Your task to perform on an android device: turn on notifications settings in the gmail app Image 0: 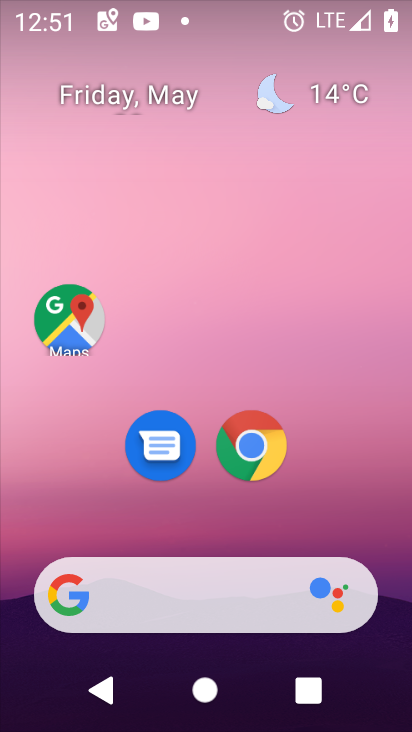
Step 0: drag from (64, 520) to (319, 87)
Your task to perform on an android device: turn on notifications settings in the gmail app Image 1: 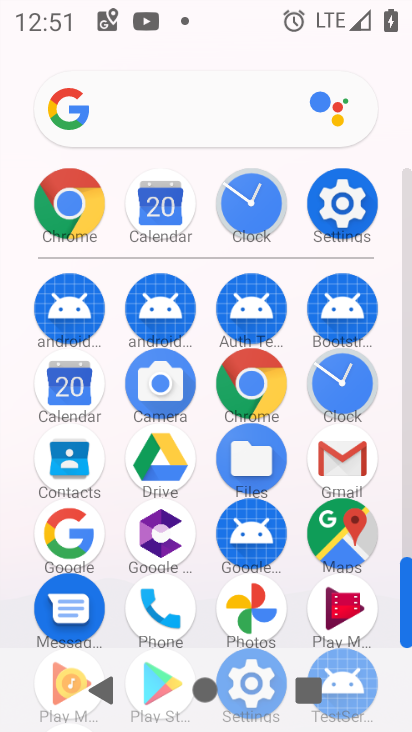
Step 1: click (319, 457)
Your task to perform on an android device: turn on notifications settings in the gmail app Image 2: 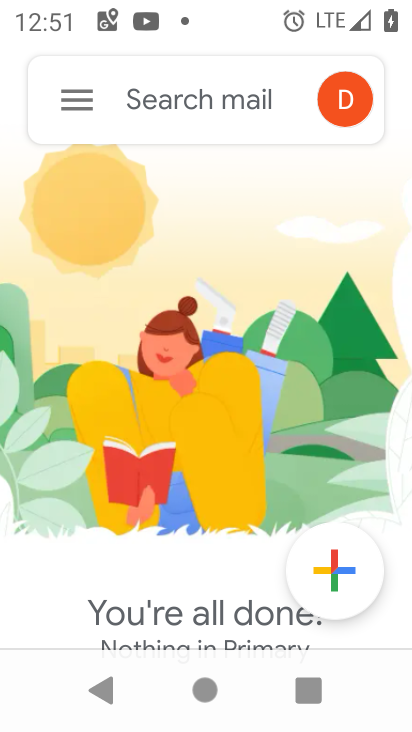
Step 2: click (71, 87)
Your task to perform on an android device: turn on notifications settings in the gmail app Image 3: 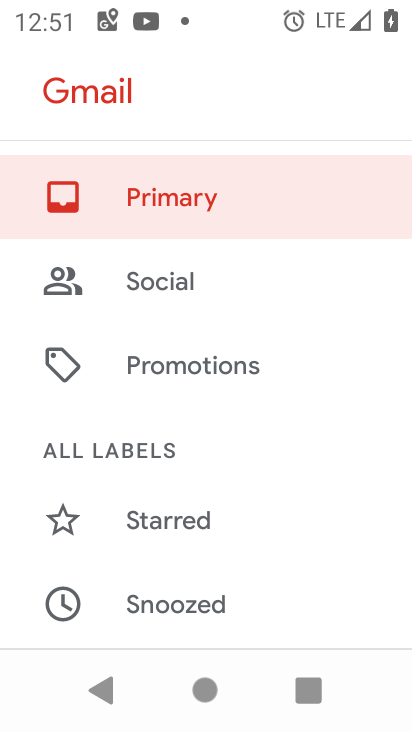
Step 3: drag from (16, 430) to (265, 157)
Your task to perform on an android device: turn on notifications settings in the gmail app Image 4: 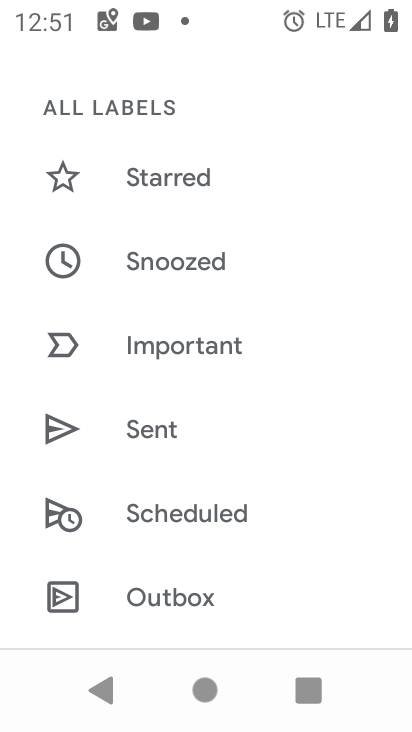
Step 4: drag from (16, 620) to (397, 100)
Your task to perform on an android device: turn on notifications settings in the gmail app Image 5: 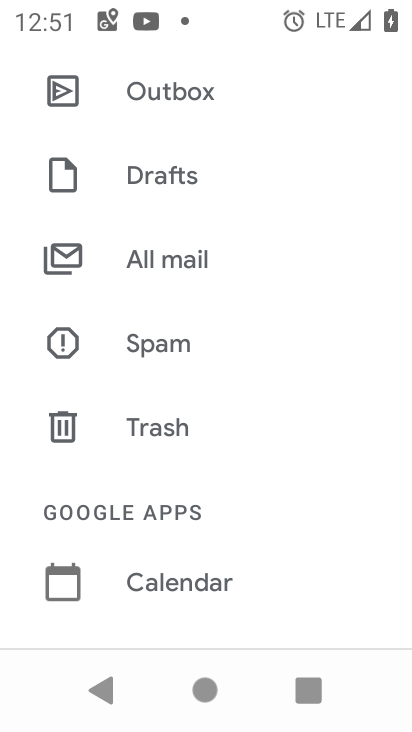
Step 5: drag from (106, 394) to (261, 86)
Your task to perform on an android device: turn on notifications settings in the gmail app Image 6: 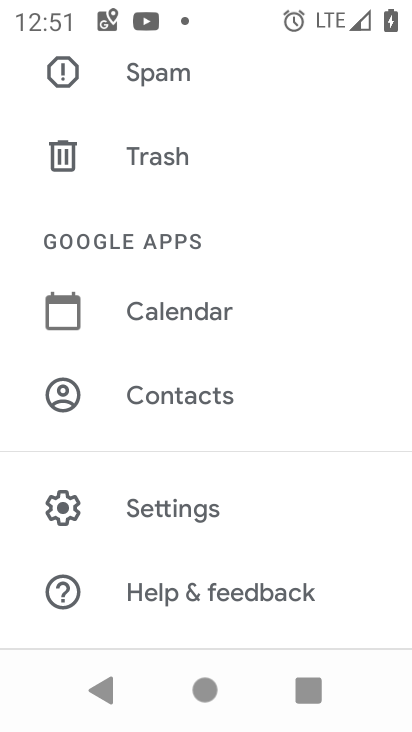
Step 6: drag from (164, 125) to (165, 697)
Your task to perform on an android device: turn on notifications settings in the gmail app Image 7: 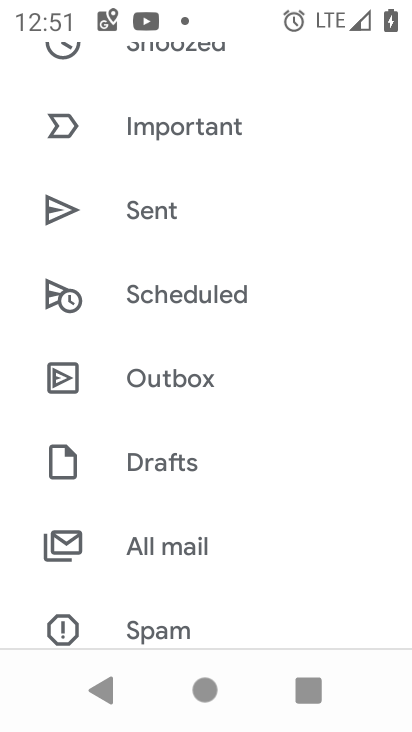
Step 7: drag from (14, 403) to (240, 90)
Your task to perform on an android device: turn on notifications settings in the gmail app Image 8: 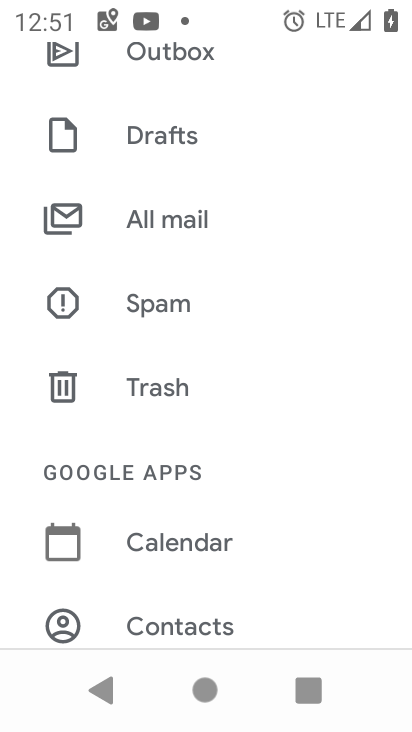
Step 8: drag from (65, 409) to (180, 132)
Your task to perform on an android device: turn on notifications settings in the gmail app Image 9: 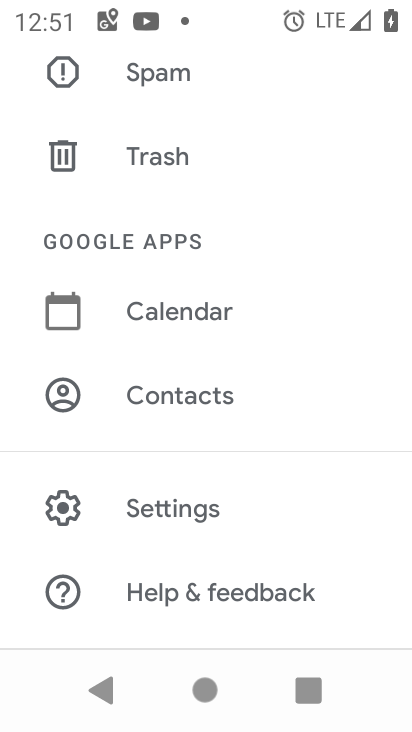
Step 9: click (109, 507)
Your task to perform on an android device: turn on notifications settings in the gmail app Image 10: 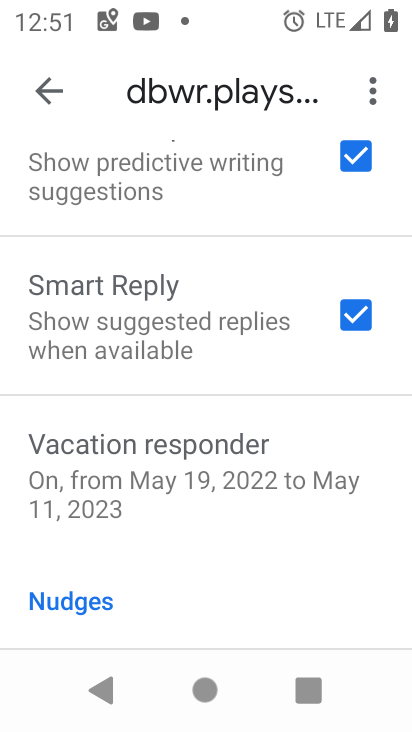
Step 10: drag from (15, 573) to (238, 210)
Your task to perform on an android device: turn on notifications settings in the gmail app Image 11: 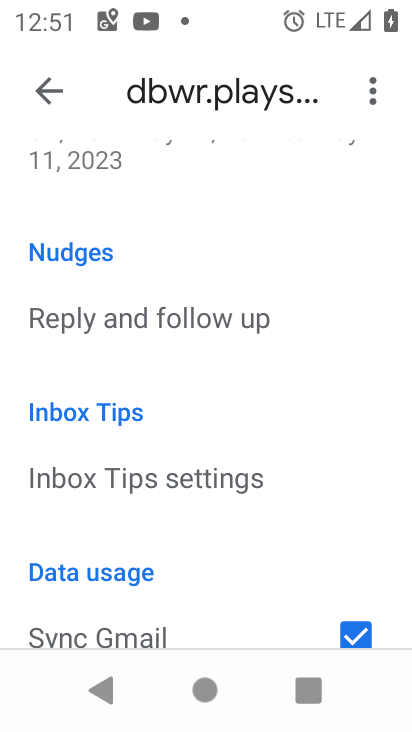
Step 11: drag from (151, 211) to (154, 661)
Your task to perform on an android device: turn on notifications settings in the gmail app Image 12: 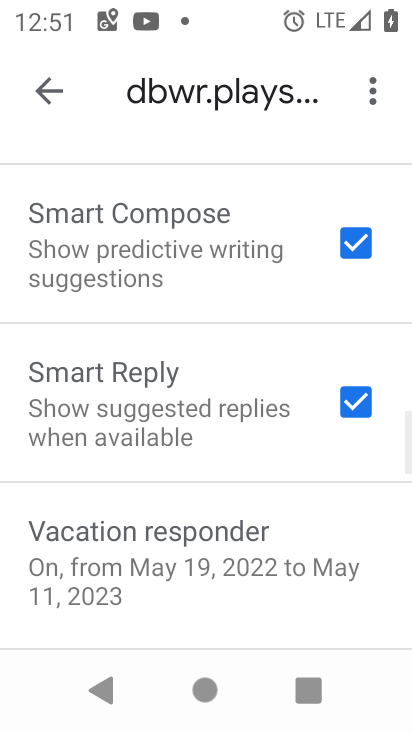
Step 12: drag from (244, 217) to (242, 617)
Your task to perform on an android device: turn on notifications settings in the gmail app Image 13: 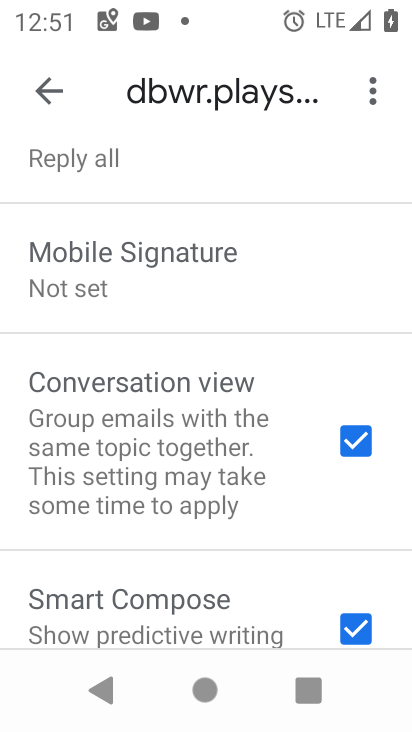
Step 13: drag from (205, 209) to (193, 602)
Your task to perform on an android device: turn on notifications settings in the gmail app Image 14: 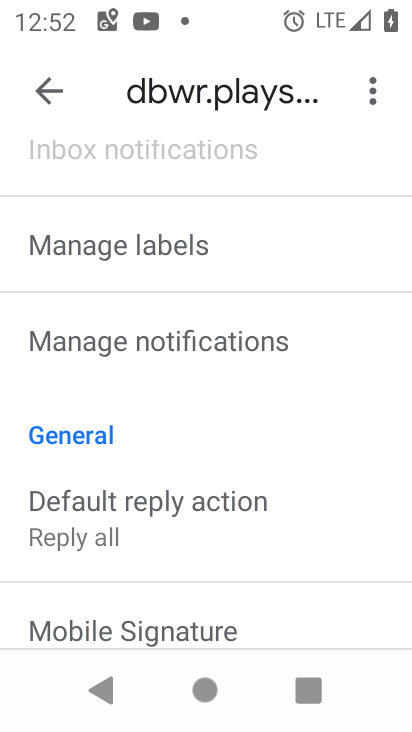
Step 14: click (181, 346)
Your task to perform on an android device: turn on notifications settings in the gmail app Image 15: 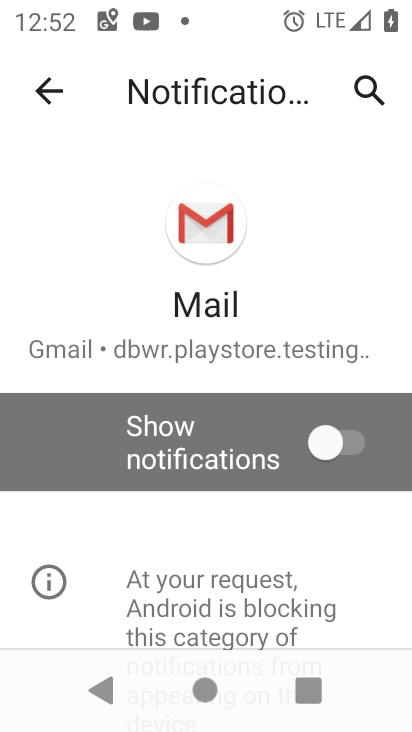
Step 15: click (314, 445)
Your task to perform on an android device: turn on notifications settings in the gmail app Image 16: 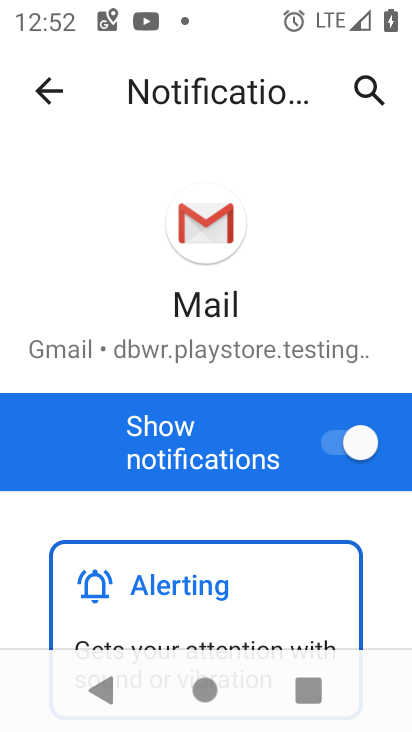
Step 16: task complete